Your task to perform on an android device: Open the web browser Image 0: 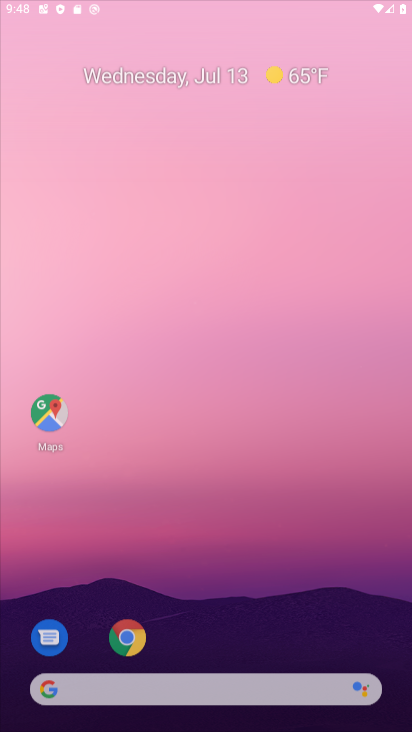
Step 0: drag from (216, 522) to (262, 61)
Your task to perform on an android device: Open the web browser Image 1: 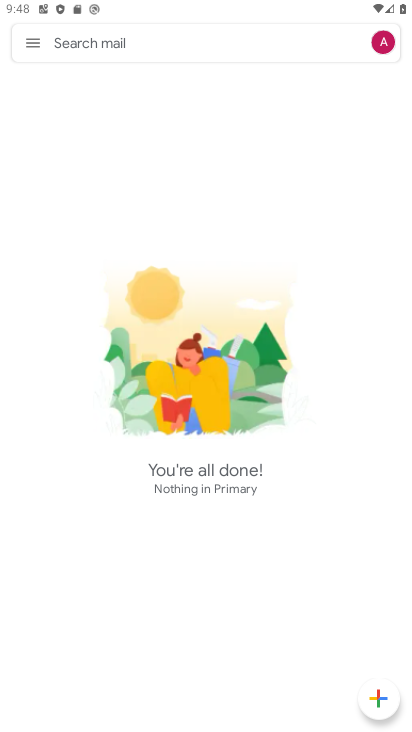
Step 1: press home button
Your task to perform on an android device: Open the web browser Image 2: 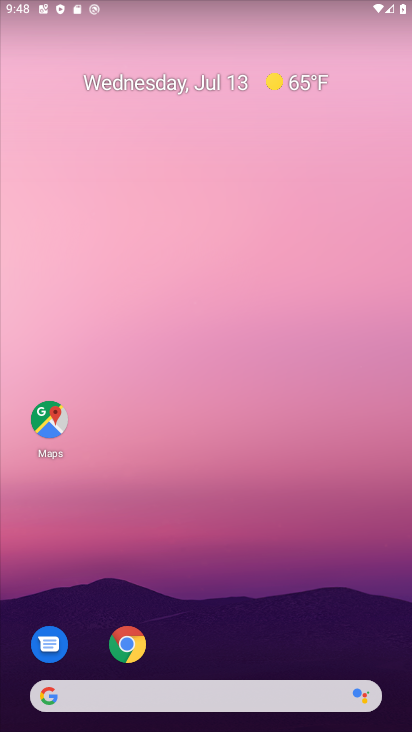
Step 2: drag from (259, 562) to (315, 93)
Your task to perform on an android device: Open the web browser Image 3: 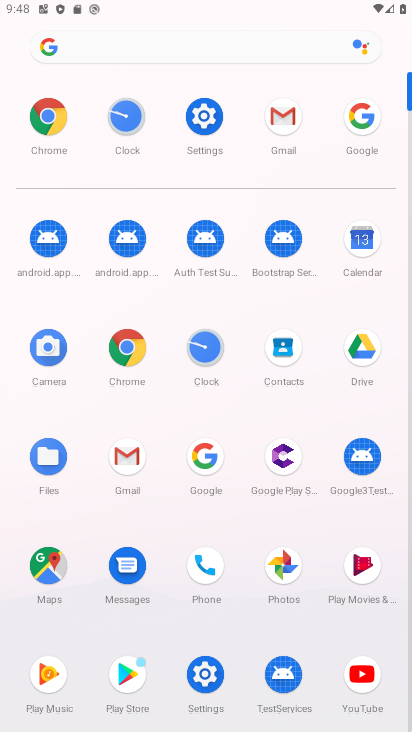
Step 3: click (100, 332)
Your task to perform on an android device: Open the web browser Image 4: 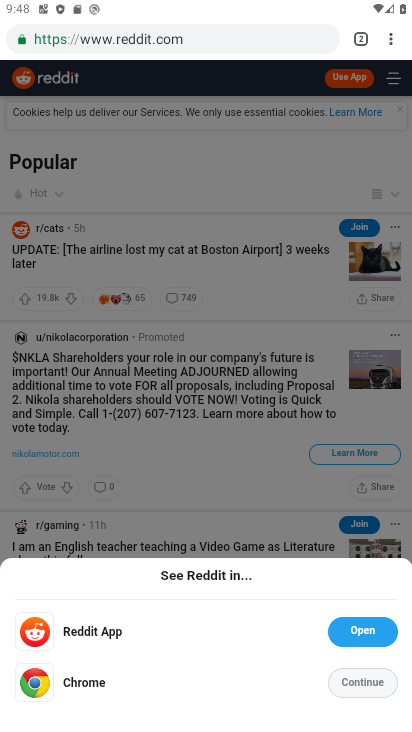
Step 4: task complete